Your task to perform on an android device: turn on sleep mode Image 0: 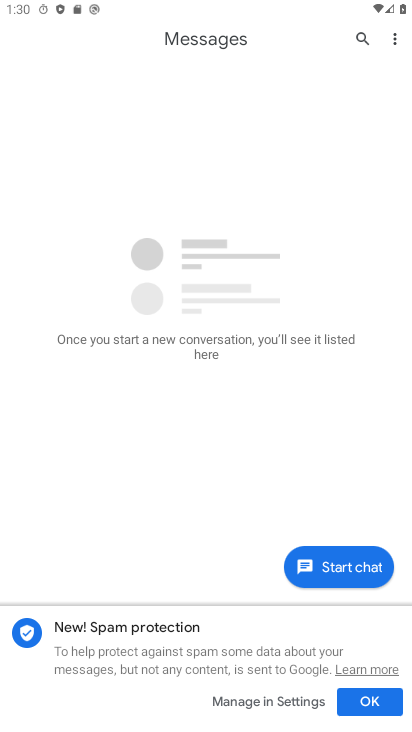
Step 0: press home button
Your task to perform on an android device: turn on sleep mode Image 1: 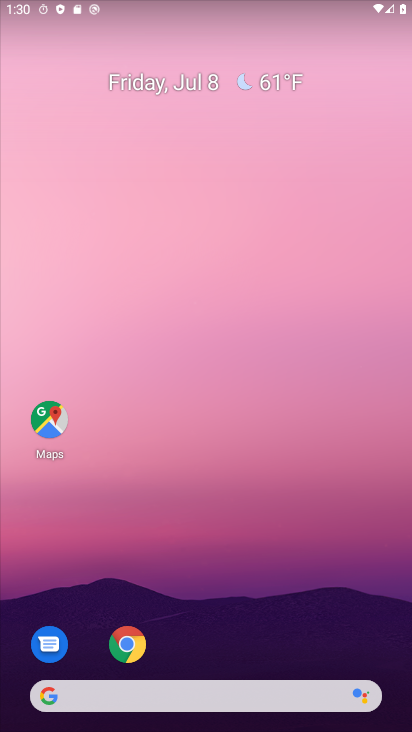
Step 1: drag from (197, 171) to (262, 41)
Your task to perform on an android device: turn on sleep mode Image 2: 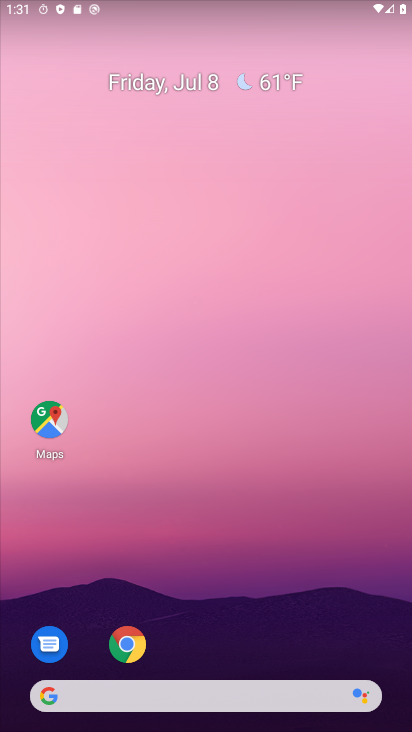
Step 2: drag from (232, 645) to (266, 109)
Your task to perform on an android device: turn on sleep mode Image 3: 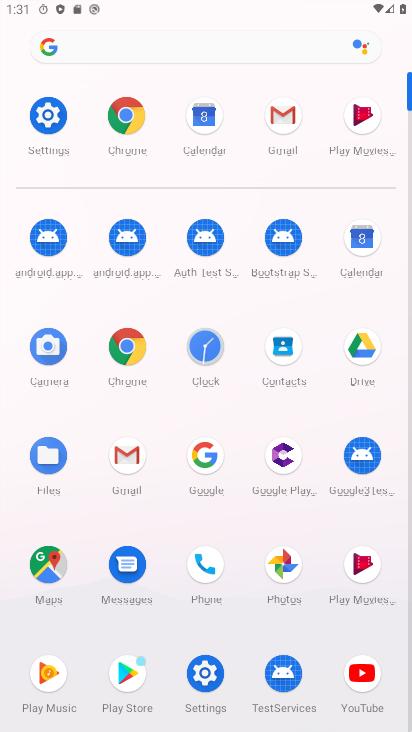
Step 3: click (49, 106)
Your task to perform on an android device: turn on sleep mode Image 4: 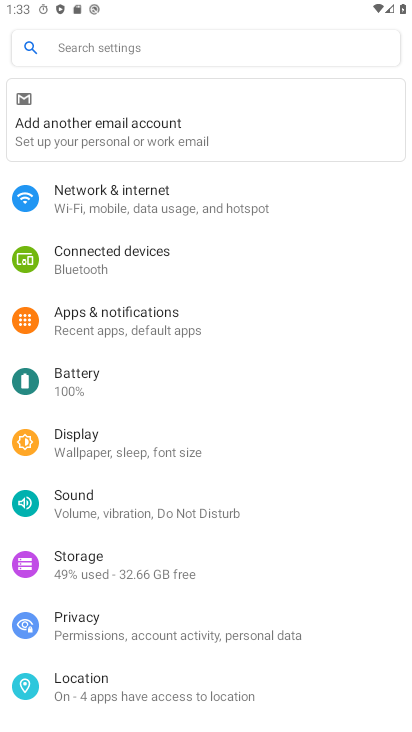
Step 4: task complete